Your task to perform on an android device: Show me the alarms in the clock app Image 0: 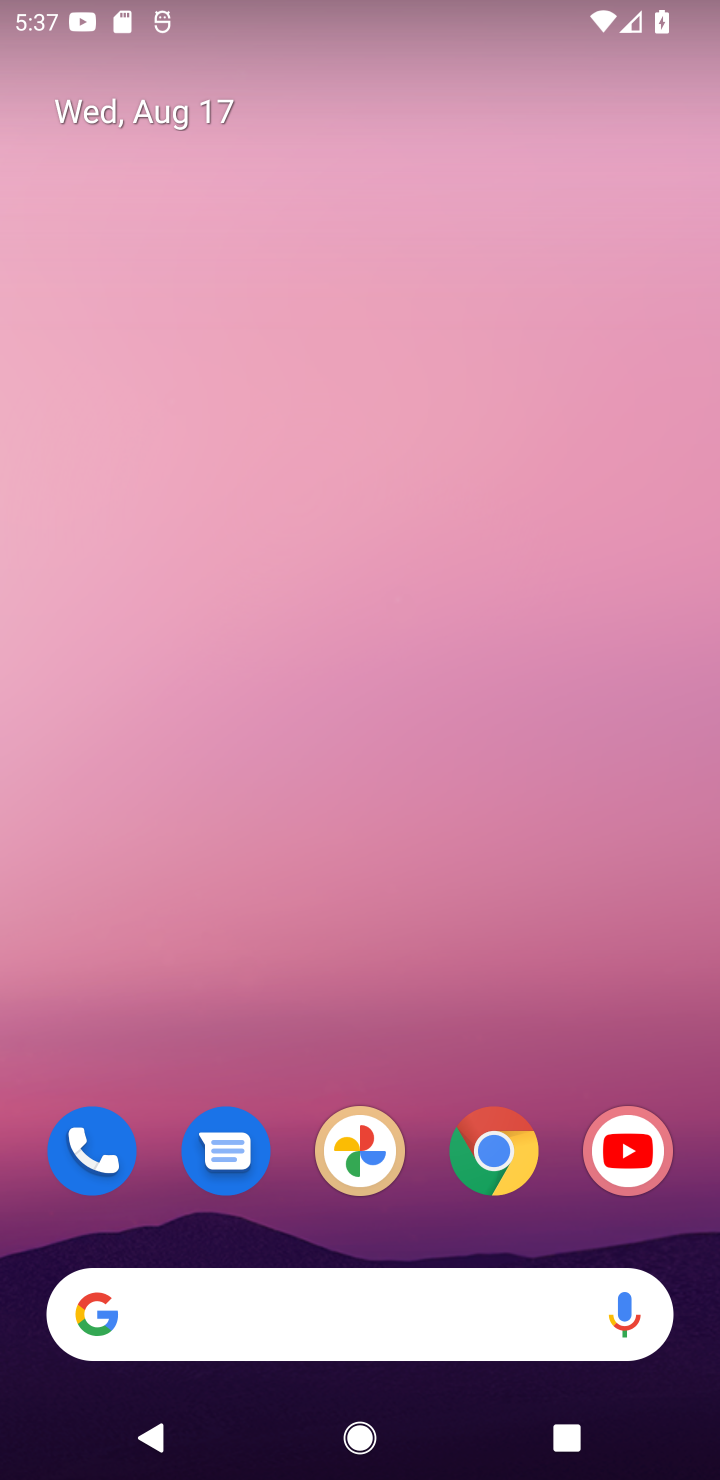
Step 0: drag from (437, 1228) to (326, 40)
Your task to perform on an android device: Show me the alarms in the clock app Image 1: 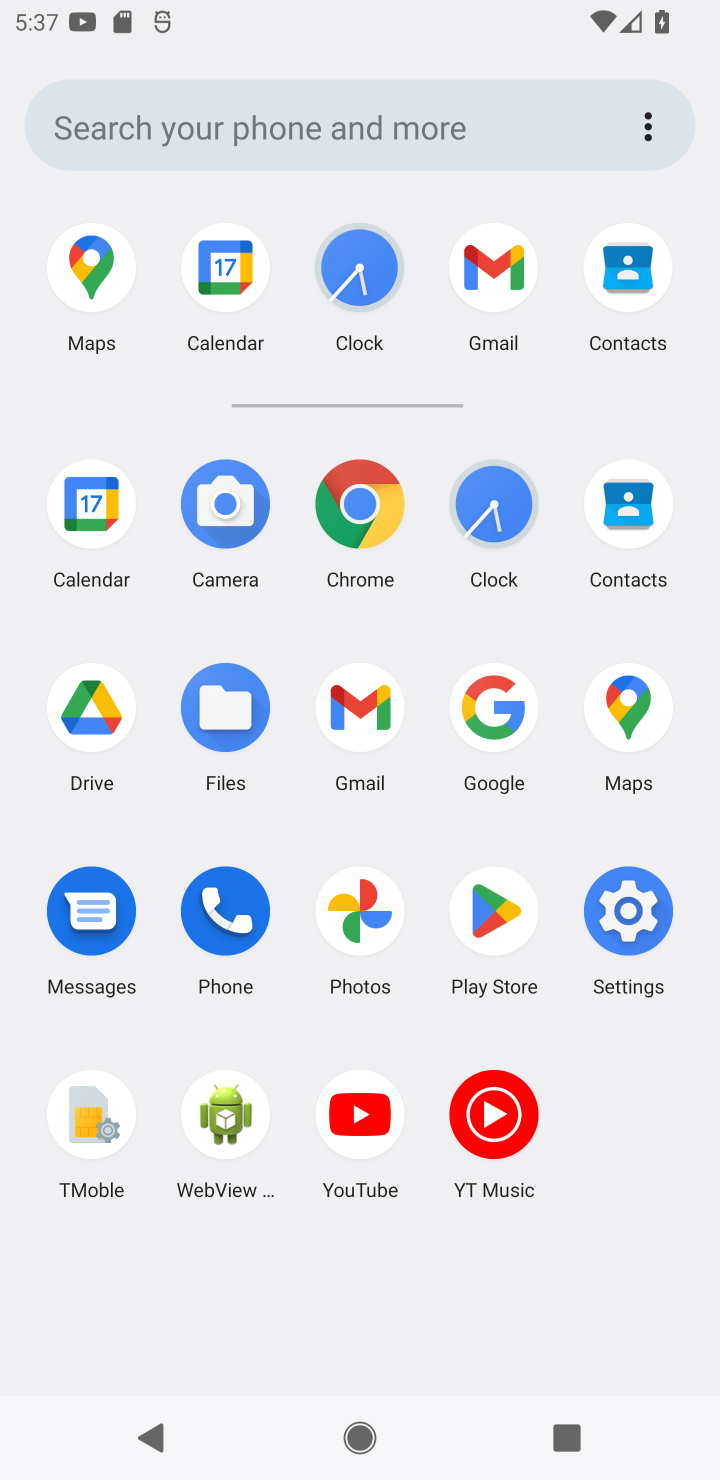
Step 1: click (530, 532)
Your task to perform on an android device: Show me the alarms in the clock app Image 2: 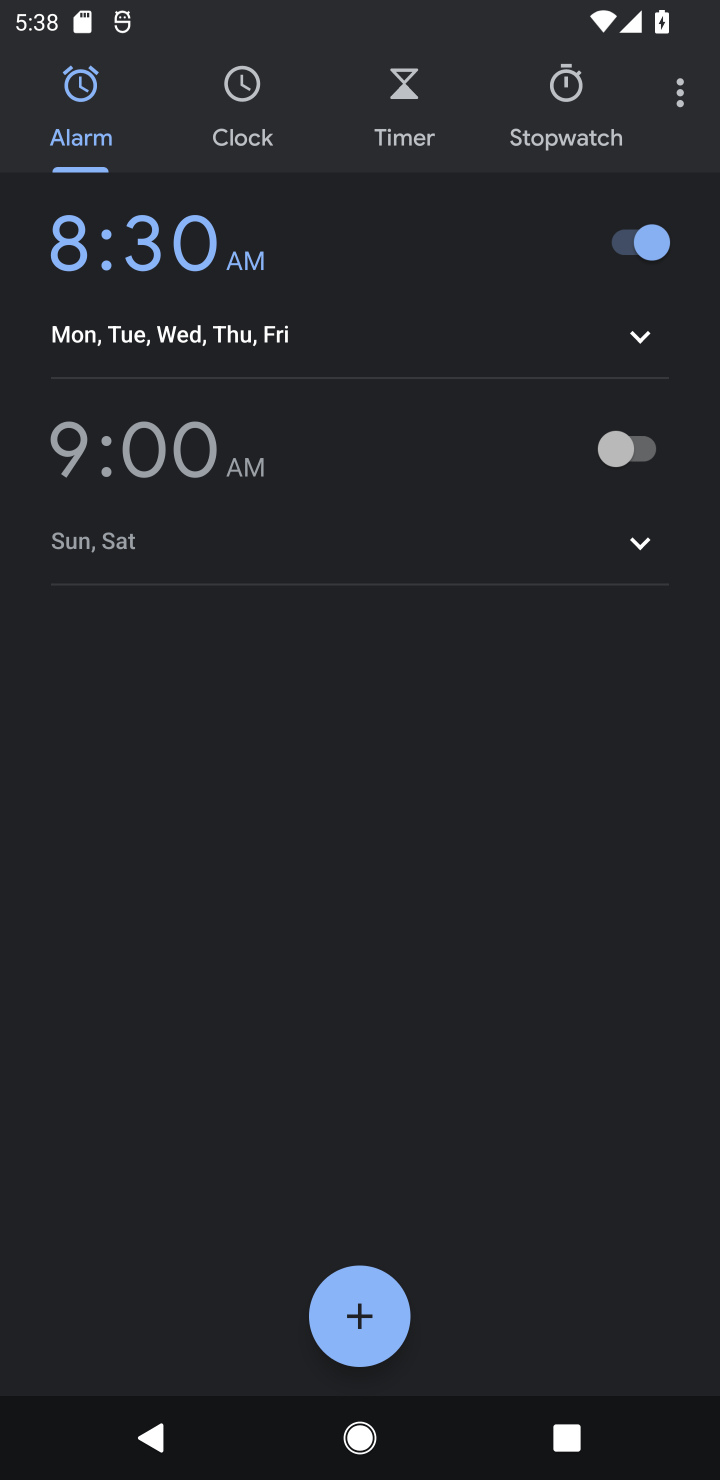
Step 2: task complete